Your task to perform on an android device: Open calendar and show me the third week of next month Image 0: 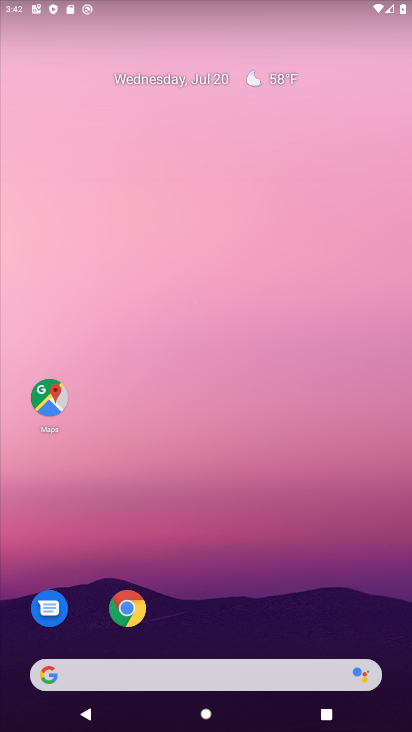
Step 0: drag from (256, 648) to (278, 283)
Your task to perform on an android device: Open calendar and show me the third week of next month Image 1: 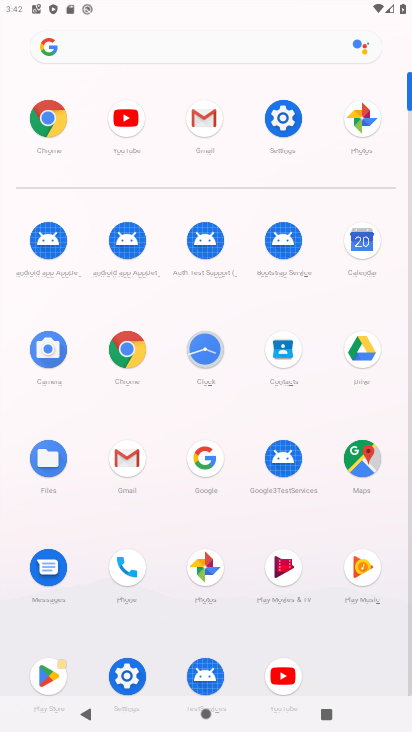
Step 1: click (353, 261)
Your task to perform on an android device: Open calendar and show me the third week of next month Image 2: 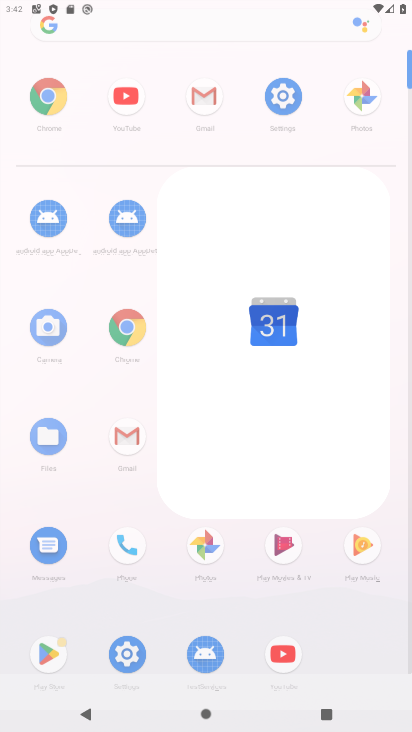
Step 2: task complete